Your task to perform on an android device: Show me recent news Image 0: 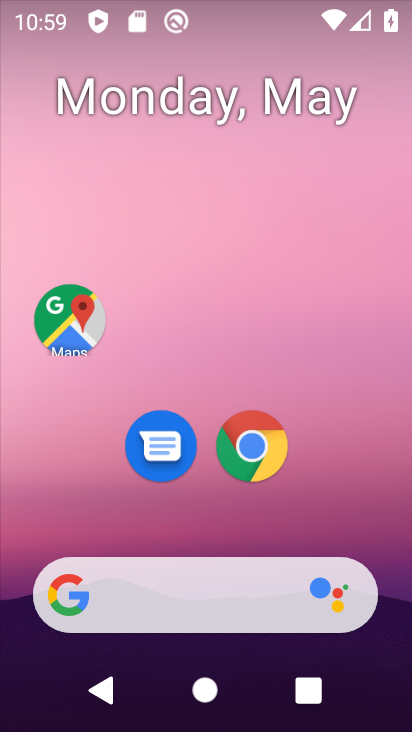
Step 0: drag from (9, 200) to (399, 204)
Your task to perform on an android device: Show me recent news Image 1: 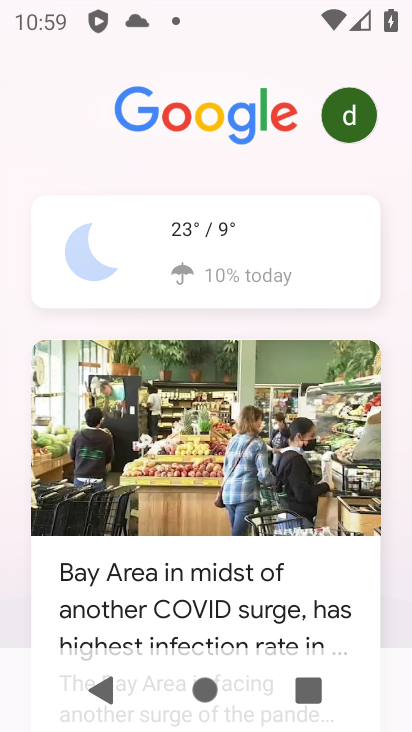
Step 1: task complete